Your task to perform on an android device: Open the stopwatch Image 0: 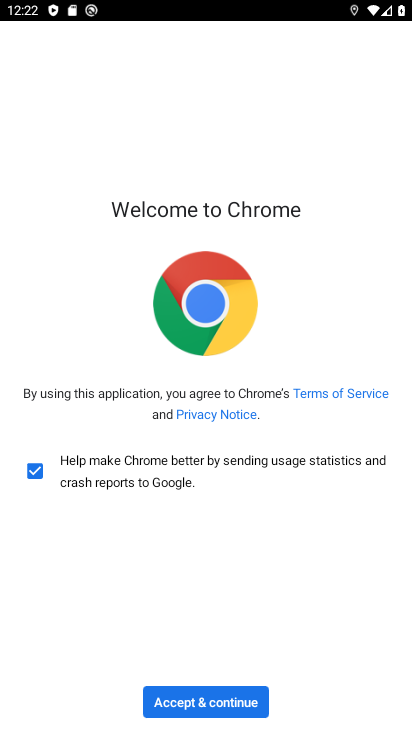
Step 0: press home button
Your task to perform on an android device: Open the stopwatch Image 1: 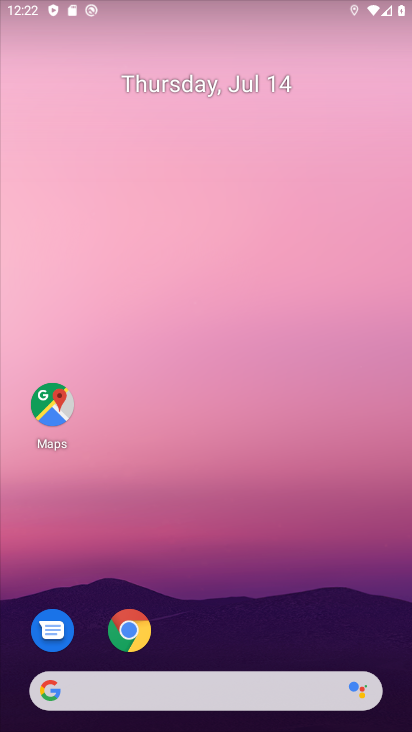
Step 1: drag from (264, 662) to (300, 180)
Your task to perform on an android device: Open the stopwatch Image 2: 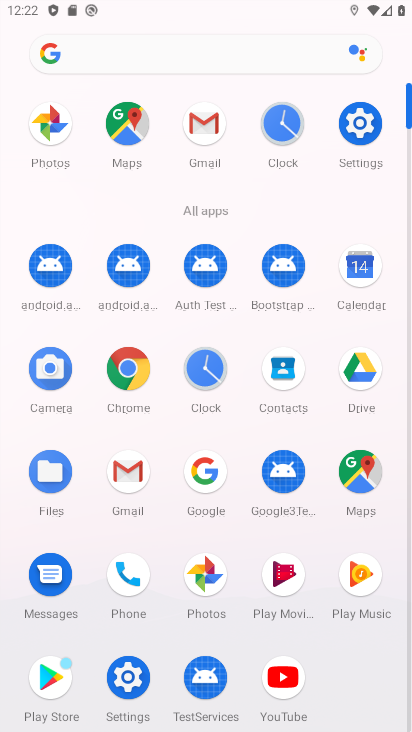
Step 2: click (187, 371)
Your task to perform on an android device: Open the stopwatch Image 3: 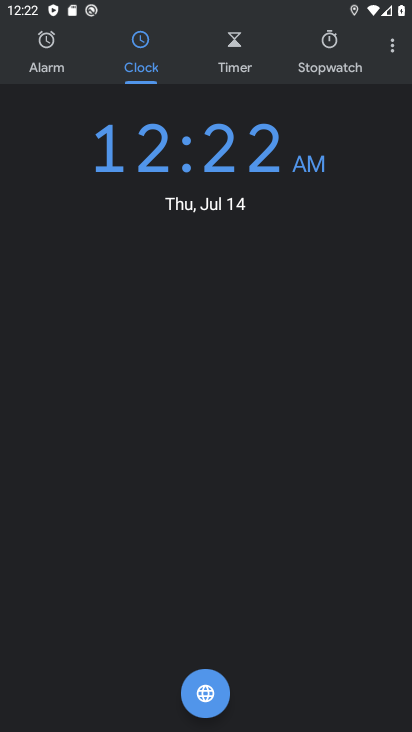
Step 3: click (322, 62)
Your task to perform on an android device: Open the stopwatch Image 4: 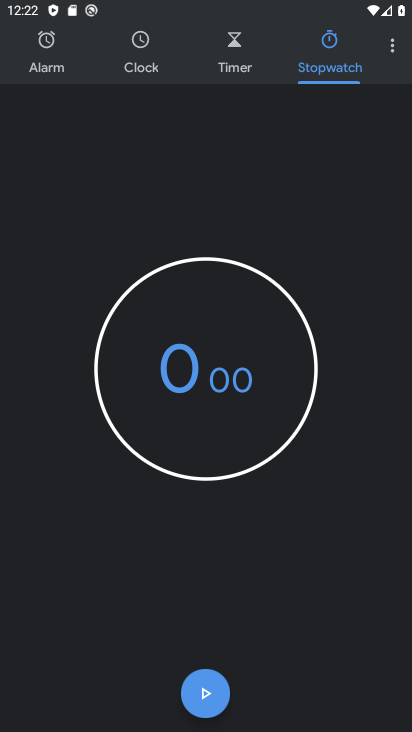
Step 4: task complete